Your task to perform on an android device: turn off data saver in the chrome app Image 0: 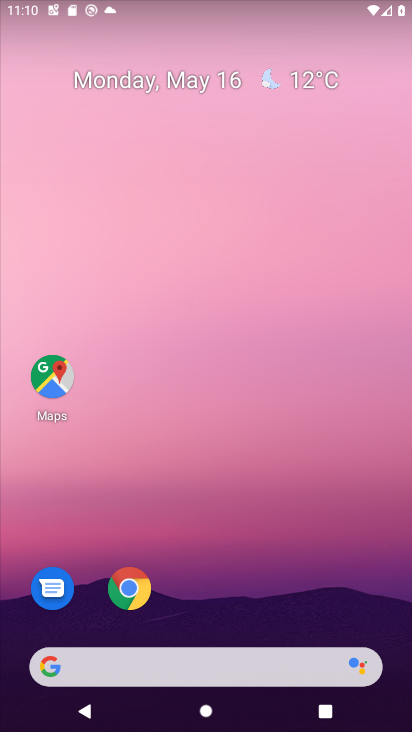
Step 0: click (125, 582)
Your task to perform on an android device: turn off data saver in the chrome app Image 1: 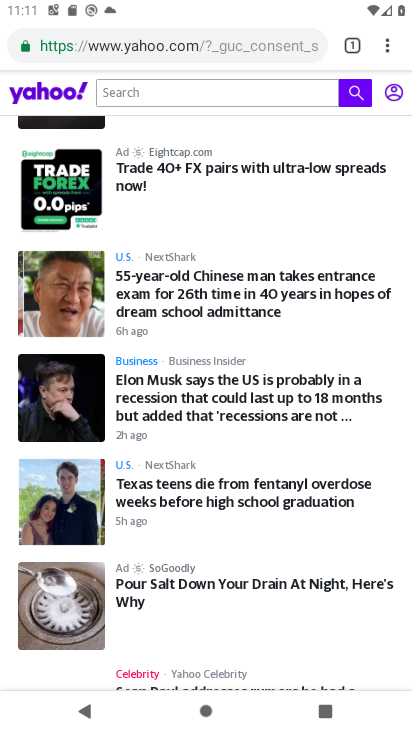
Step 1: click (384, 43)
Your task to perform on an android device: turn off data saver in the chrome app Image 2: 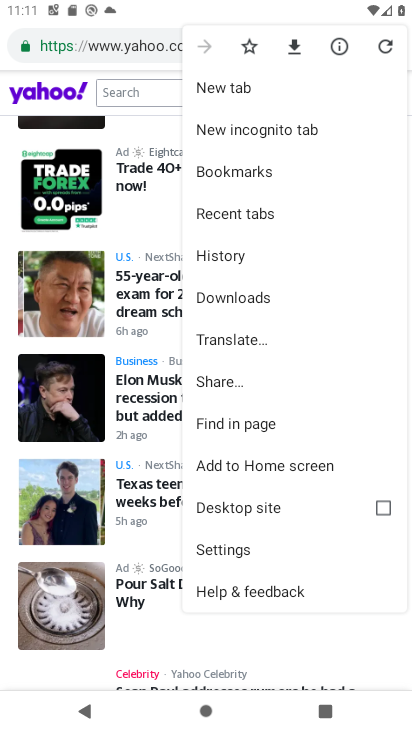
Step 2: click (262, 545)
Your task to perform on an android device: turn off data saver in the chrome app Image 3: 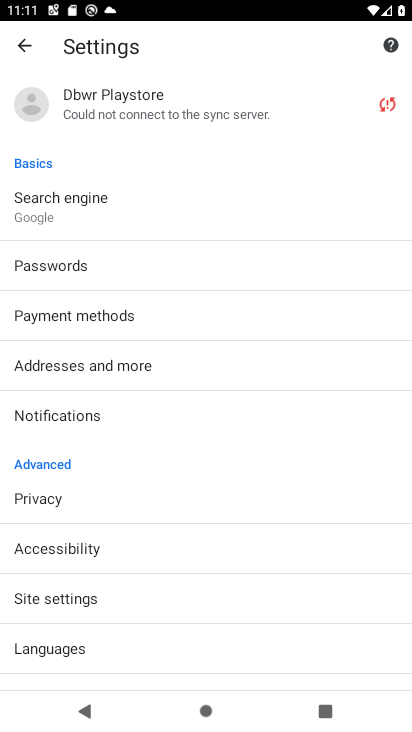
Step 3: drag from (158, 652) to (163, 153)
Your task to perform on an android device: turn off data saver in the chrome app Image 4: 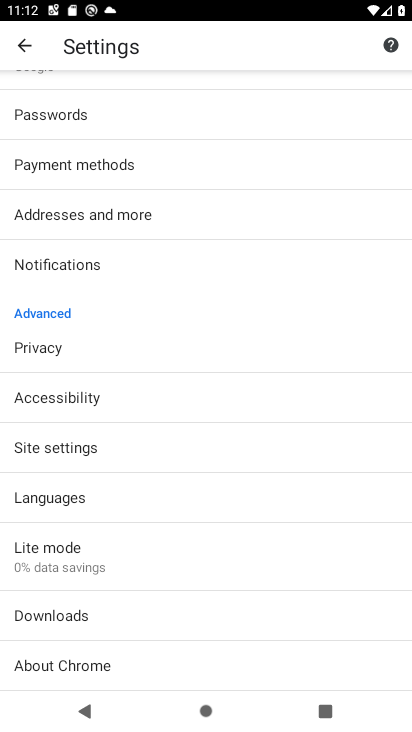
Step 4: click (143, 556)
Your task to perform on an android device: turn off data saver in the chrome app Image 5: 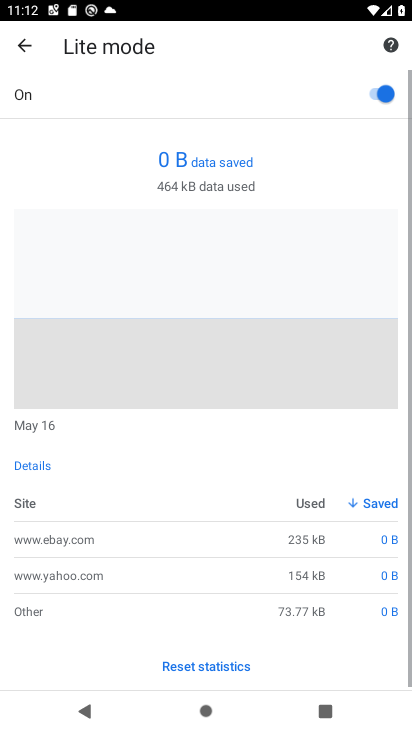
Step 5: click (375, 95)
Your task to perform on an android device: turn off data saver in the chrome app Image 6: 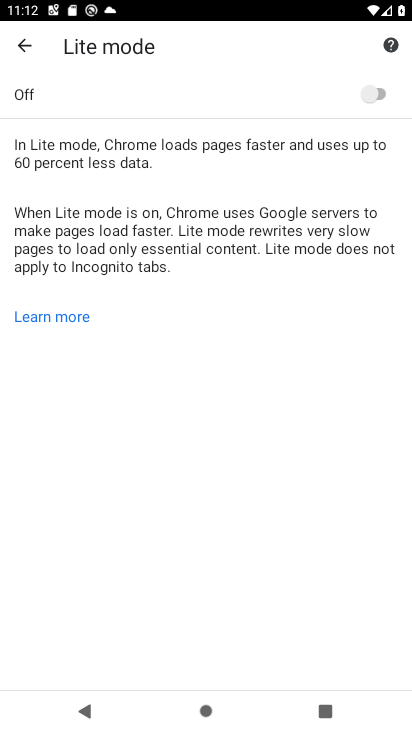
Step 6: task complete